Your task to perform on an android device: Show me the alarms in the clock app Image 0: 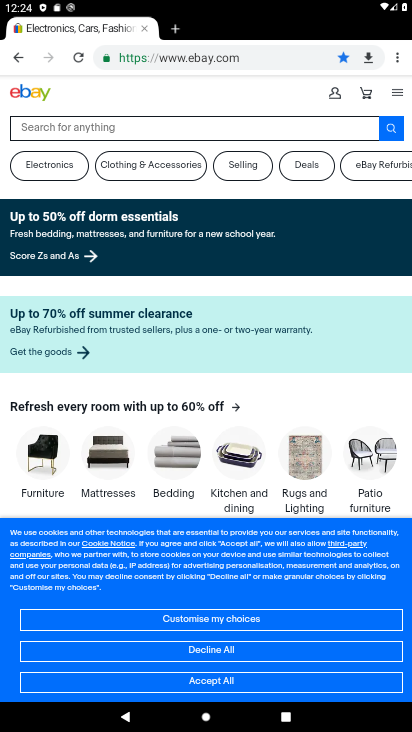
Step 0: press home button
Your task to perform on an android device: Show me the alarms in the clock app Image 1: 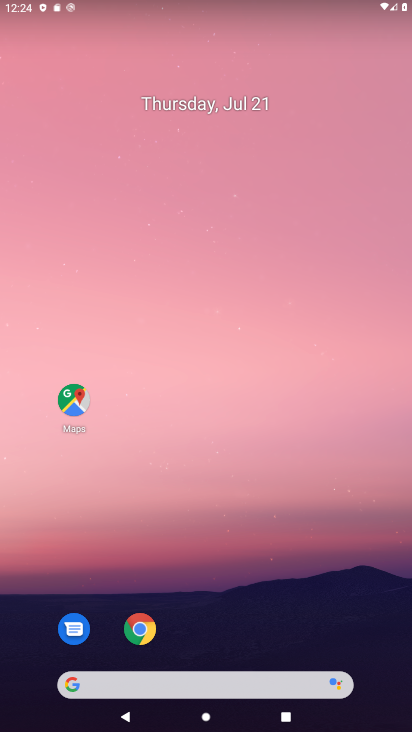
Step 1: drag from (225, 645) to (204, 202)
Your task to perform on an android device: Show me the alarms in the clock app Image 2: 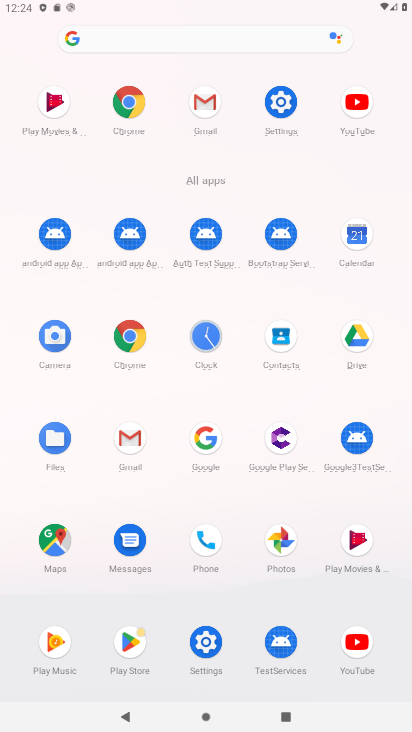
Step 2: click (205, 337)
Your task to perform on an android device: Show me the alarms in the clock app Image 3: 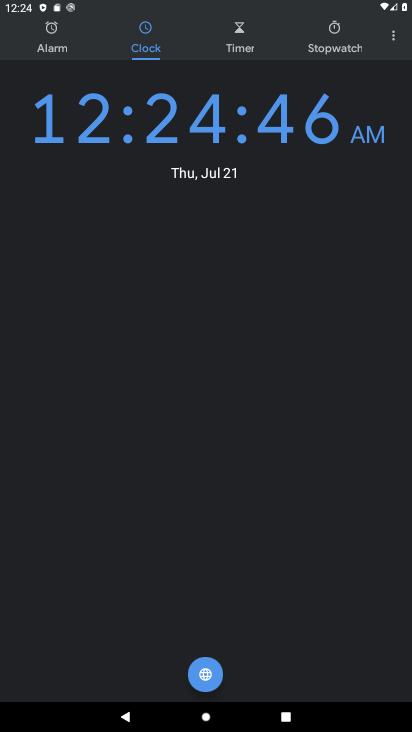
Step 3: click (60, 46)
Your task to perform on an android device: Show me the alarms in the clock app Image 4: 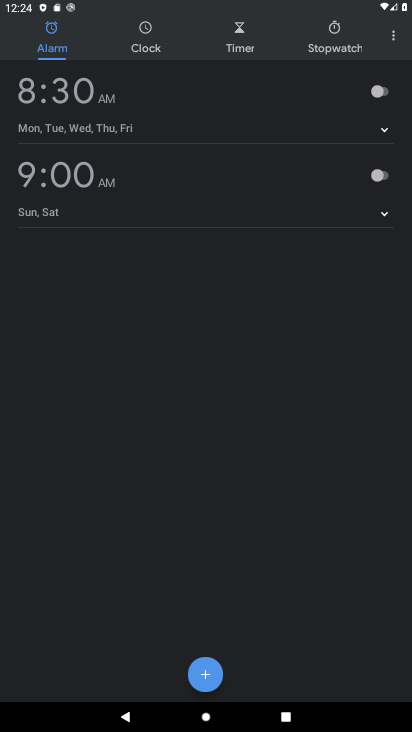
Step 4: task complete